Your task to perform on an android device: open the mobile data screen to see how much data has been used Image 0: 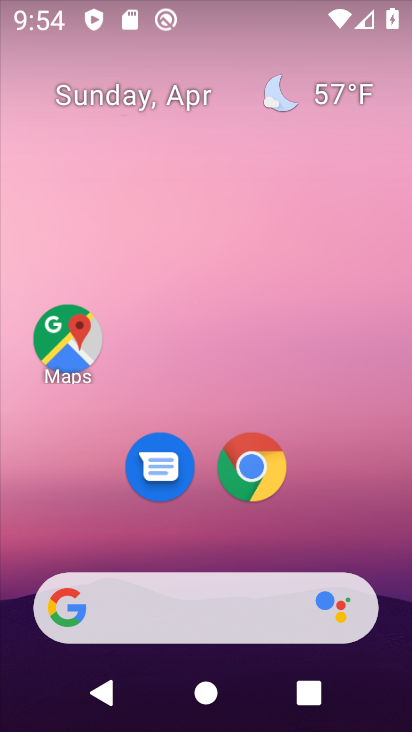
Step 0: drag from (364, 527) to (280, 85)
Your task to perform on an android device: open the mobile data screen to see how much data has been used Image 1: 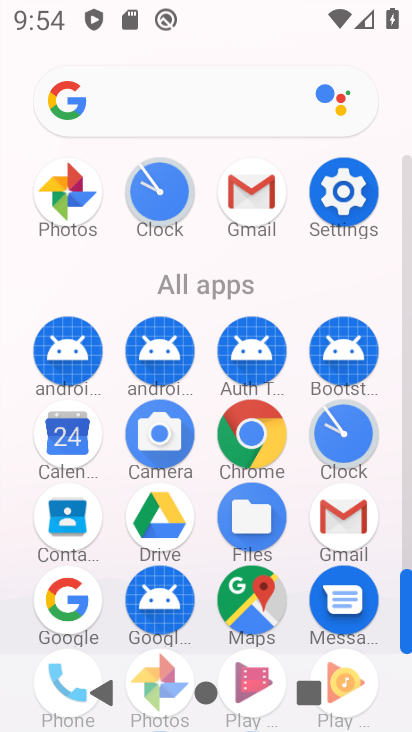
Step 1: click (332, 193)
Your task to perform on an android device: open the mobile data screen to see how much data has been used Image 2: 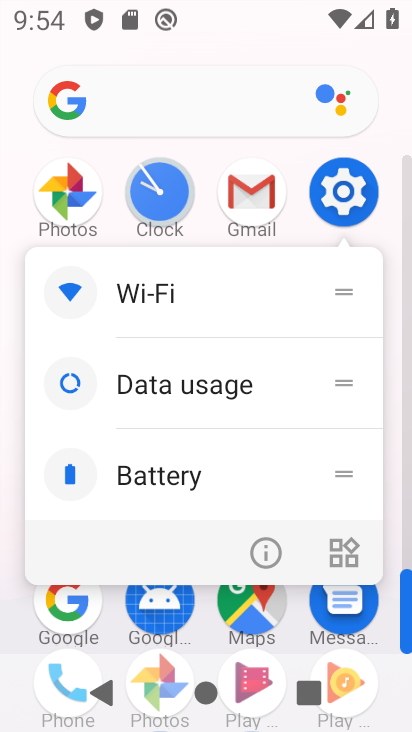
Step 2: click (199, 618)
Your task to perform on an android device: open the mobile data screen to see how much data has been used Image 3: 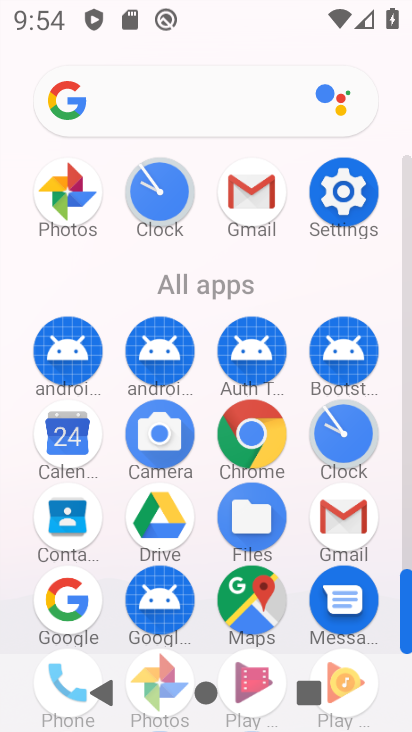
Step 3: drag from (209, 289) to (177, 4)
Your task to perform on an android device: open the mobile data screen to see how much data has been used Image 4: 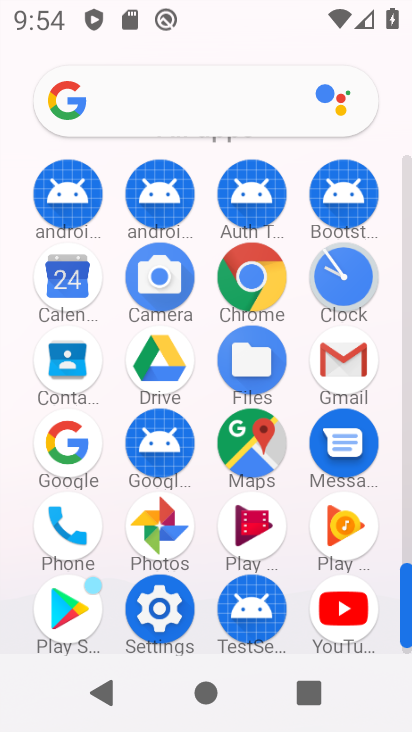
Step 4: click (171, 629)
Your task to perform on an android device: open the mobile data screen to see how much data has been used Image 5: 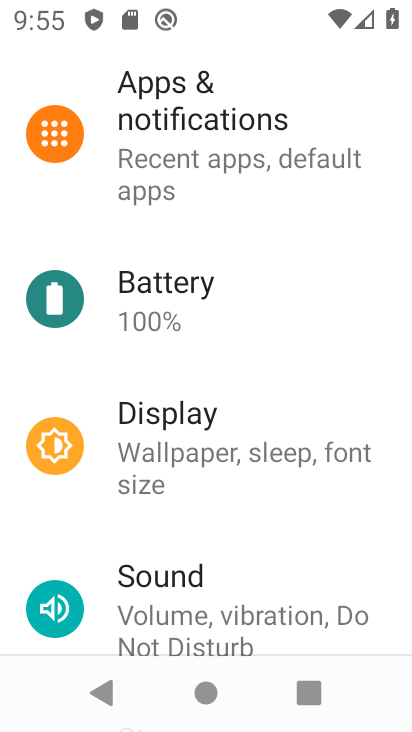
Step 5: drag from (235, 553) to (191, 149)
Your task to perform on an android device: open the mobile data screen to see how much data has been used Image 6: 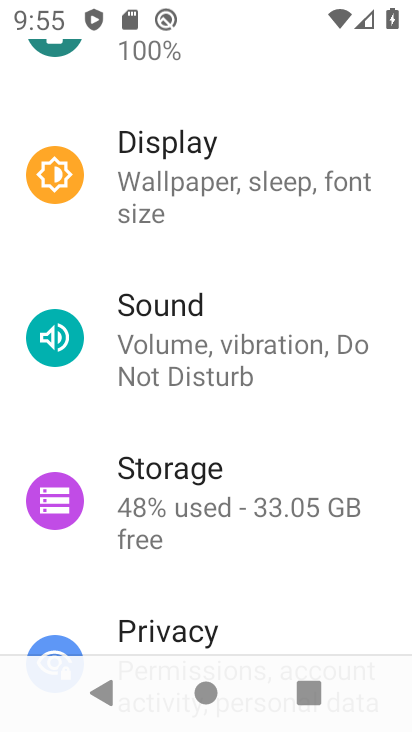
Step 6: drag from (197, 146) to (157, 594)
Your task to perform on an android device: open the mobile data screen to see how much data has been used Image 7: 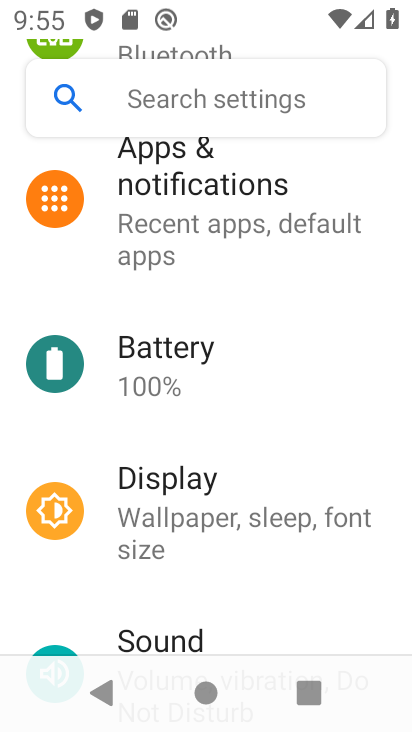
Step 7: drag from (195, 166) to (196, 413)
Your task to perform on an android device: open the mobile data screen to see how much data has been used Image 8: 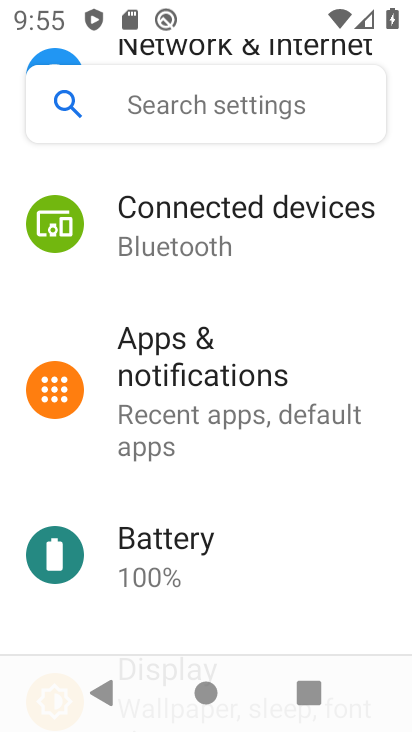
Step 8: drag from (199, 204) to (185, 438)
Your task to perform on an android device: open the mobile data screen to see how much data has been used Image 9: 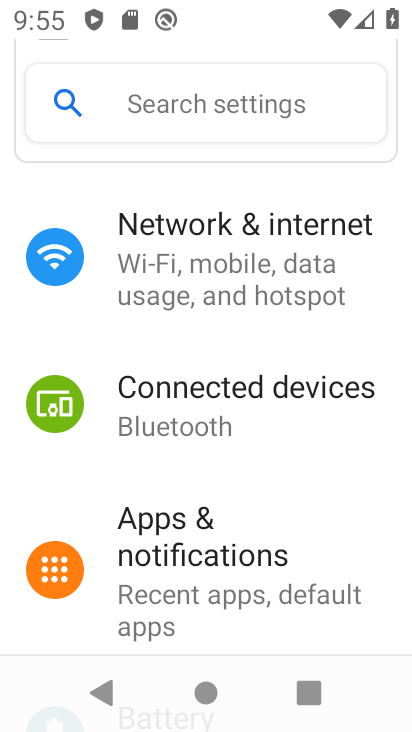
Step 9: click (181, 299)
Your task to perform on an android device: open the mobile data screen to see how much data has been used Image 10: 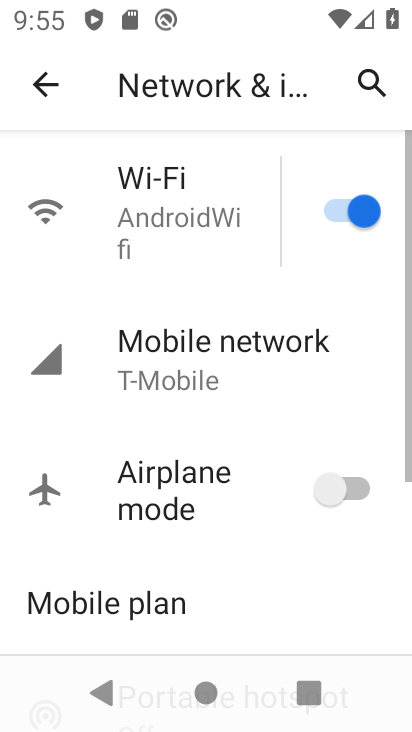
Step 10: click (183, 352)
Your task to perform on an android device: open the mobile data screen to see how much data has been used Image 11: 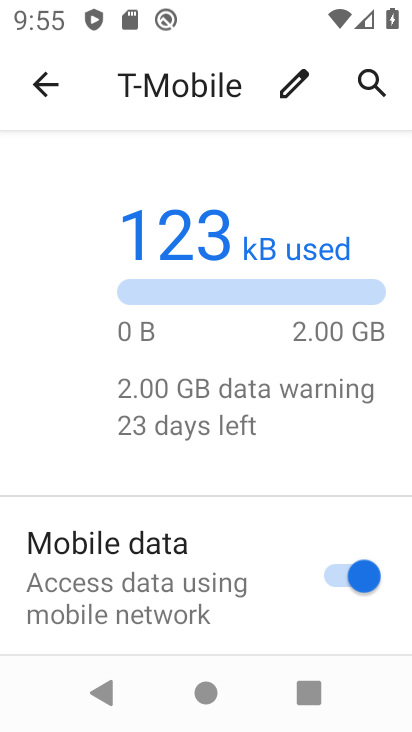
Step 11: task complete